Your task to perform on an android device: Search for 3d printer on AliExpress Image 0: 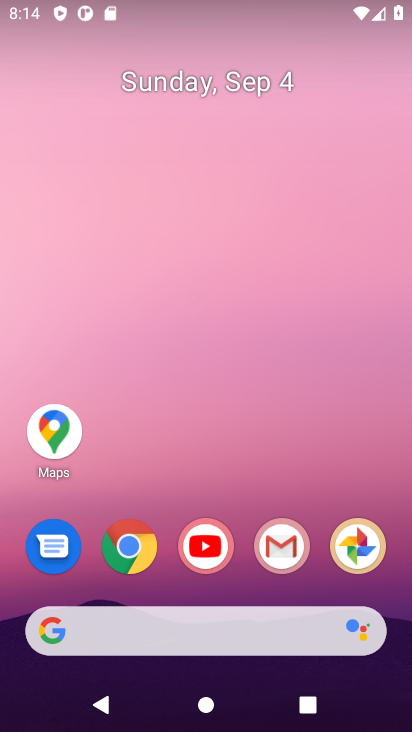
Step 0: click (129, 554)
Your task to perform on an android device: Search for 3d printer on AliExpress Image 1: 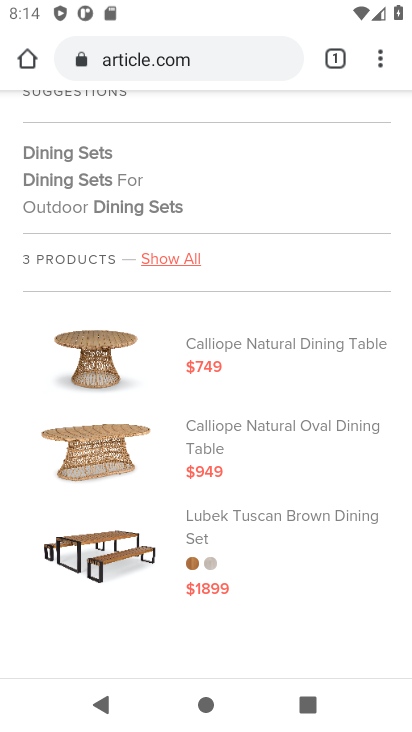
Step 1: click (169, 67)
Your task to perform on an android device: Search for 3d printer on AliExpress Image 2: 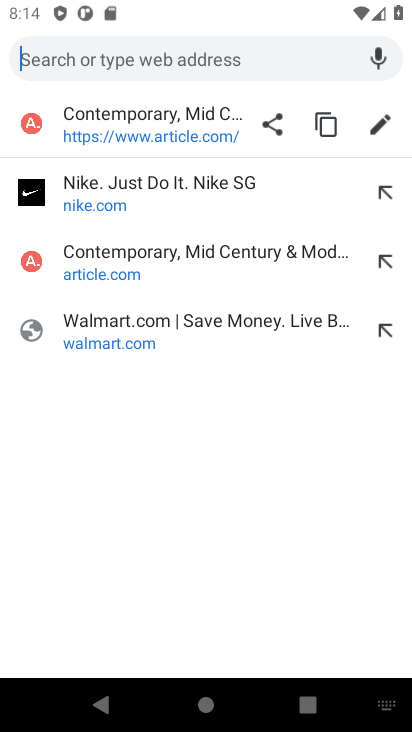
Step 2: type "AliExpress"
Your task to perform on an android device: Search for 3d printer on AliExpress Image 3: 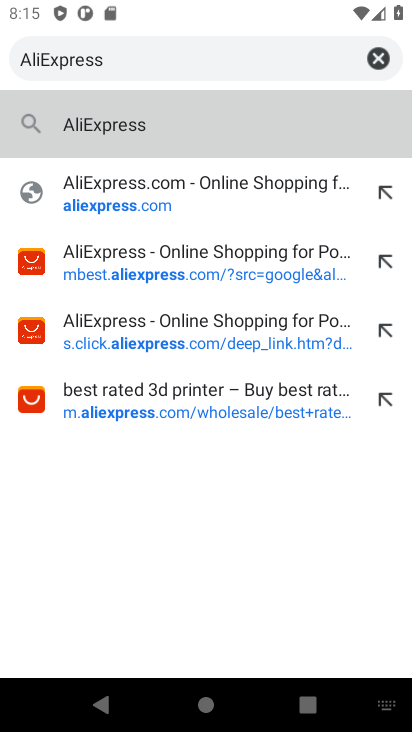
Step 3: click (99, 182)
Your task to perform on an android device: Search for 3d printer on AliExpress Image 4: 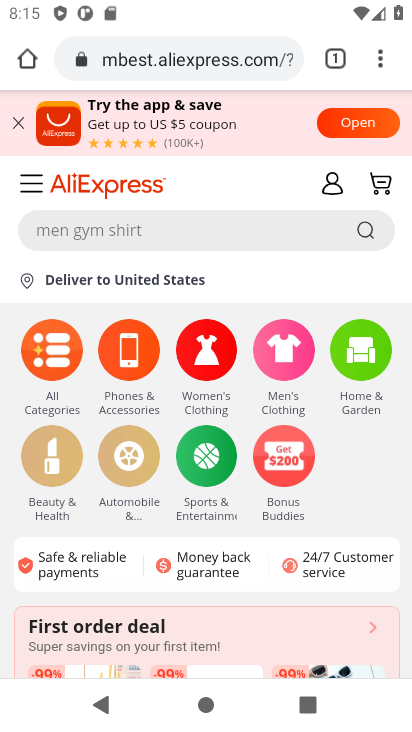
Step 4: click (105, 225)
Your task to perform on an android device: Search for 3d printer on AliExpress Image 5: 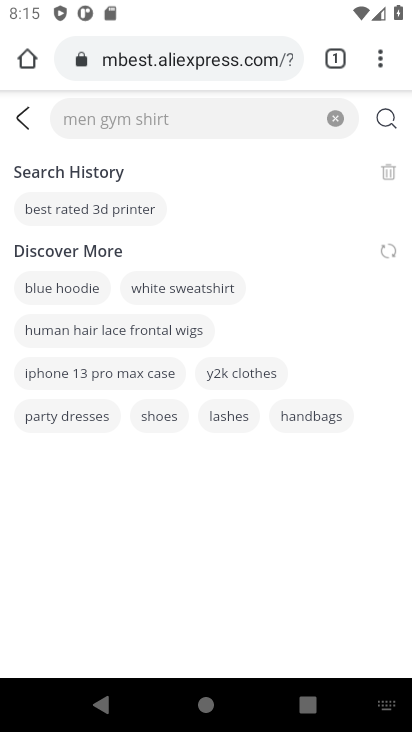
Step 5: type " 3d printer"
Your task to perform on an android device: Search for 3d printer on AliExpress Image 6: 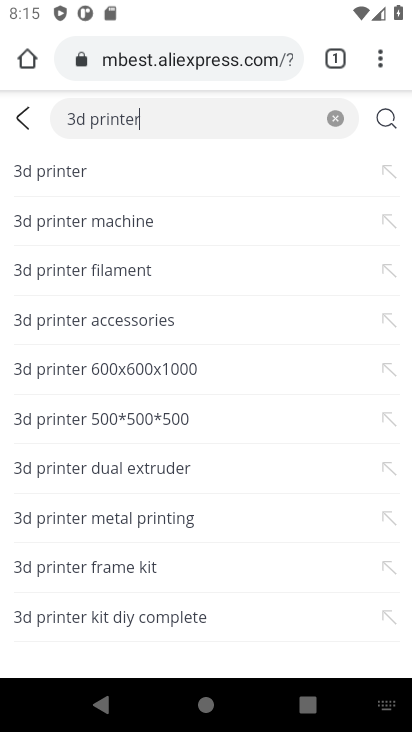
Step 6: click (44, 178)
Your task to perform on an android device: Search for 3d printer on AliExpress Image 7: 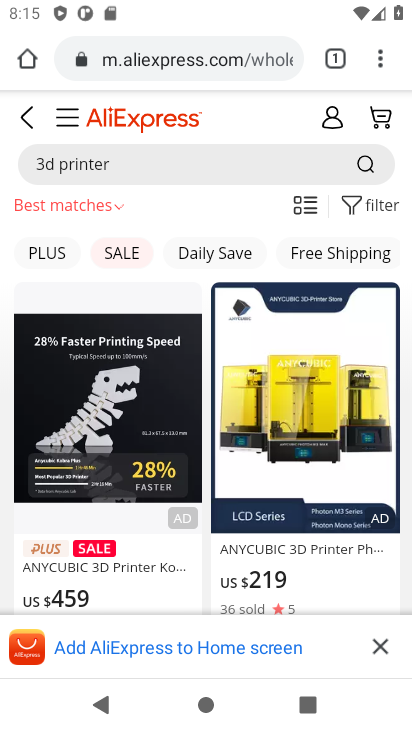
Step 7: task complete